Your task to perform on an android device: set an alarm Image 0: 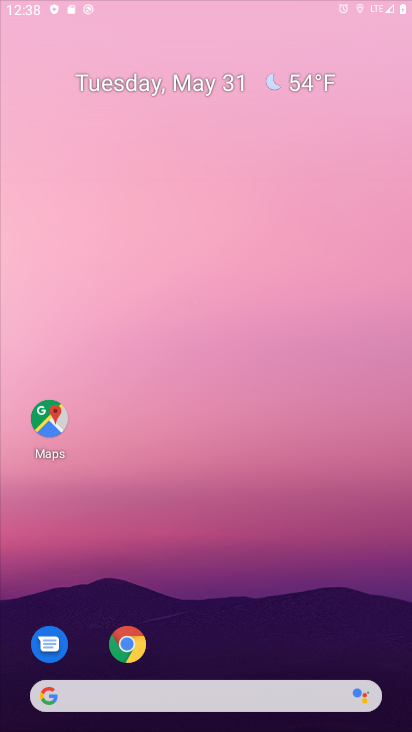
Step 0: press home button
Your task to perform on an android device: set an alarm Image 1: 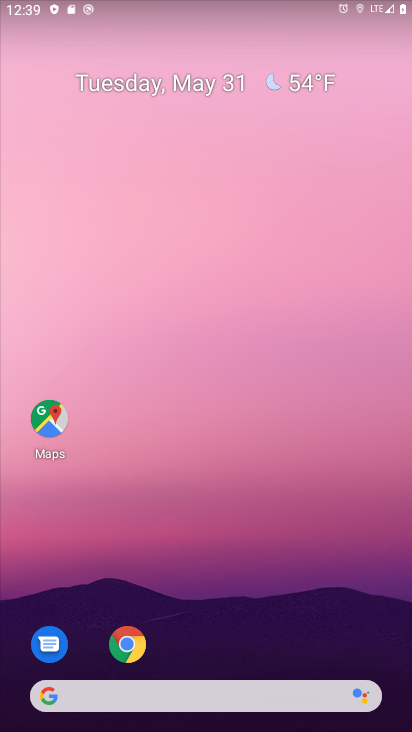
Step 1: drag from (251, 648) to (319, 61)
Your task to perform on an android device: set an alarm Image 2: 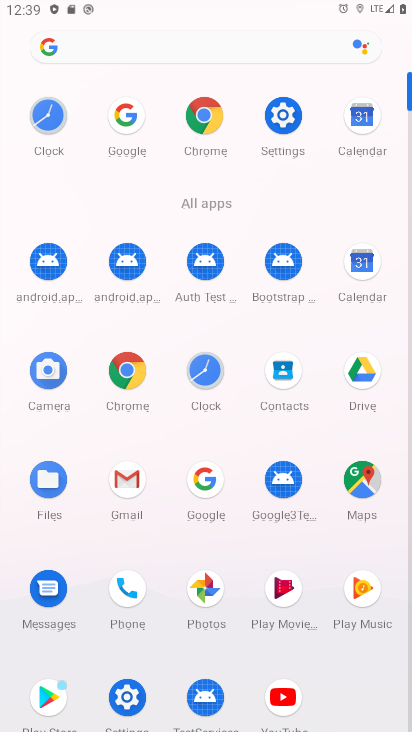
Step 2: click (42, 113)
Your task to perform on an android device: set an alarm Image 3: 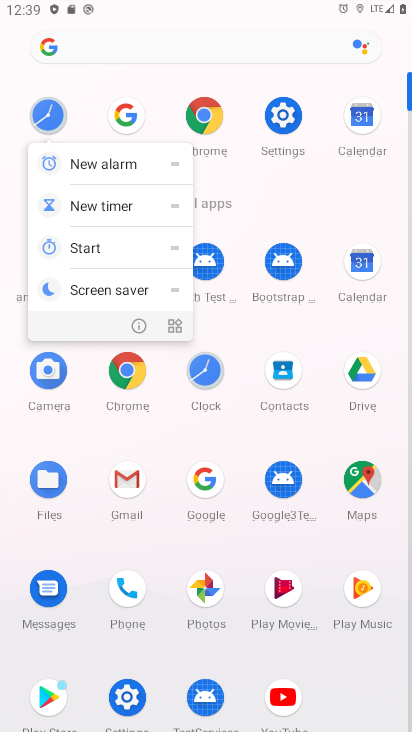
Step 3: click (42, 114)
Your task to perform on an android device: set an alarm Image 4: 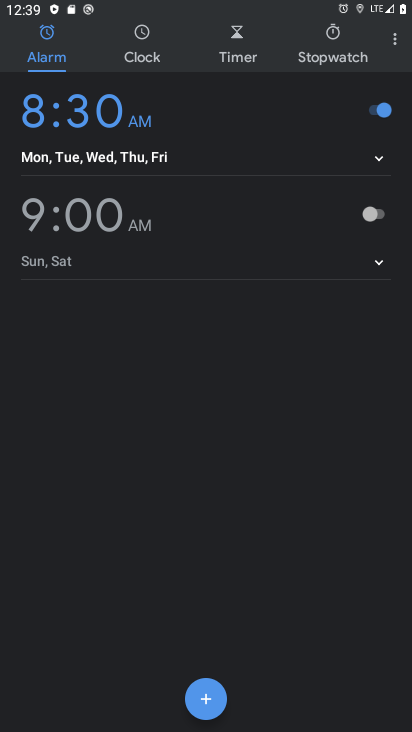
Step 4: click (379, 210)
Your task to perform on an android device: set an alarm Image 5: 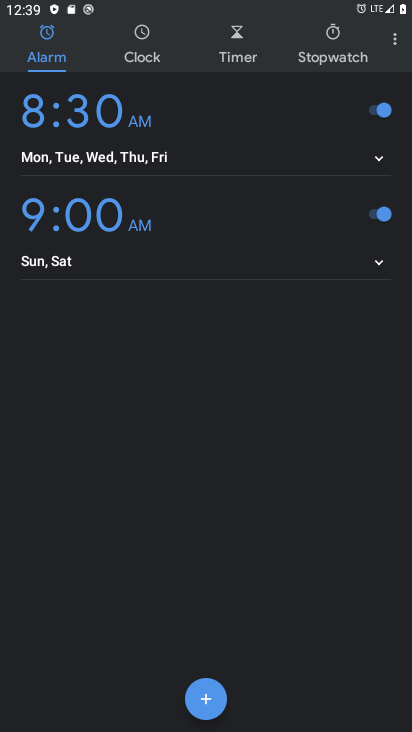
Step 5: task complete